Your task to perform on an android device: Go to Reddit.com Image 0: 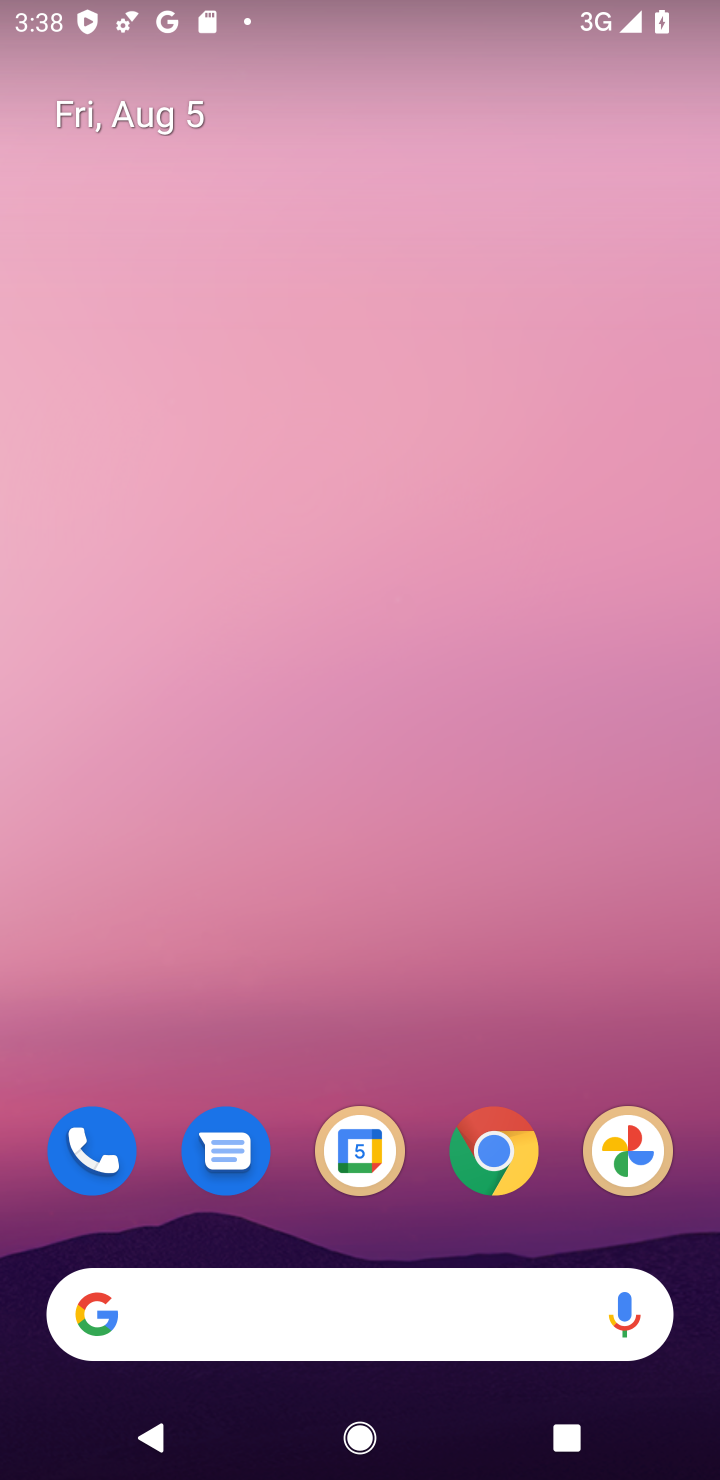
Step 0: click (519, 1150)
Your task to perform on an android device: Go to Reddit.com Image 1: 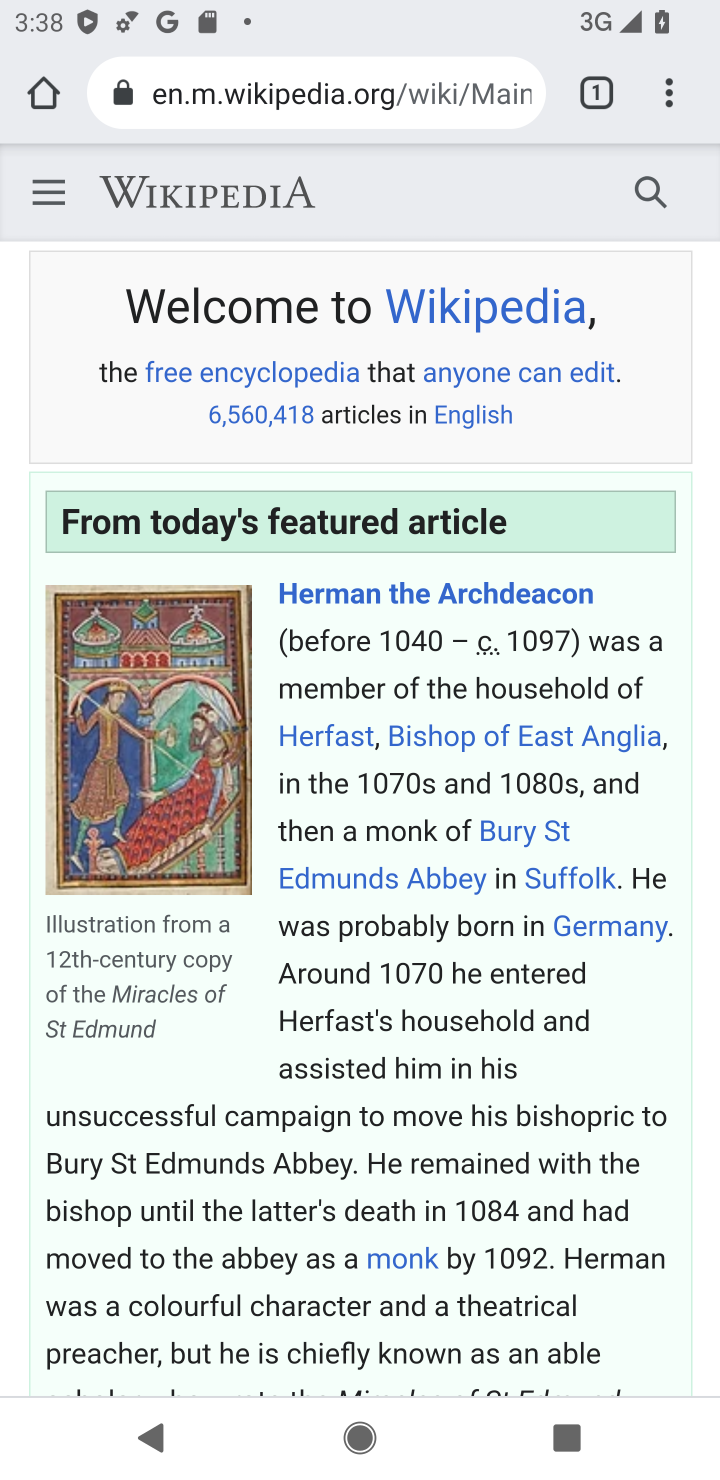
Step 1: click (300, 90)
Your task to perform on an android device: Go to Reddit.com Image 2: 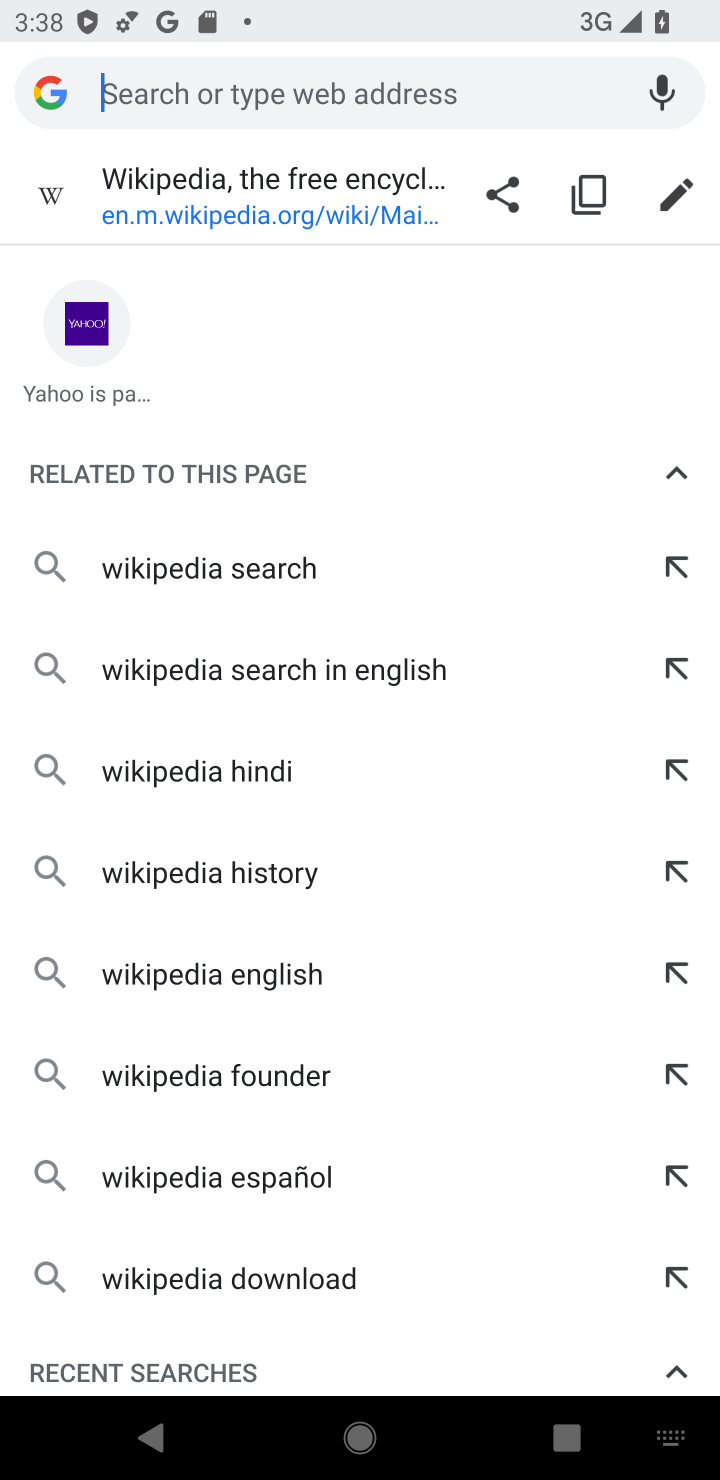
Step 2: type "reddit.com"
Your task to perform on an android device: Go to Reddit.com Image 3: 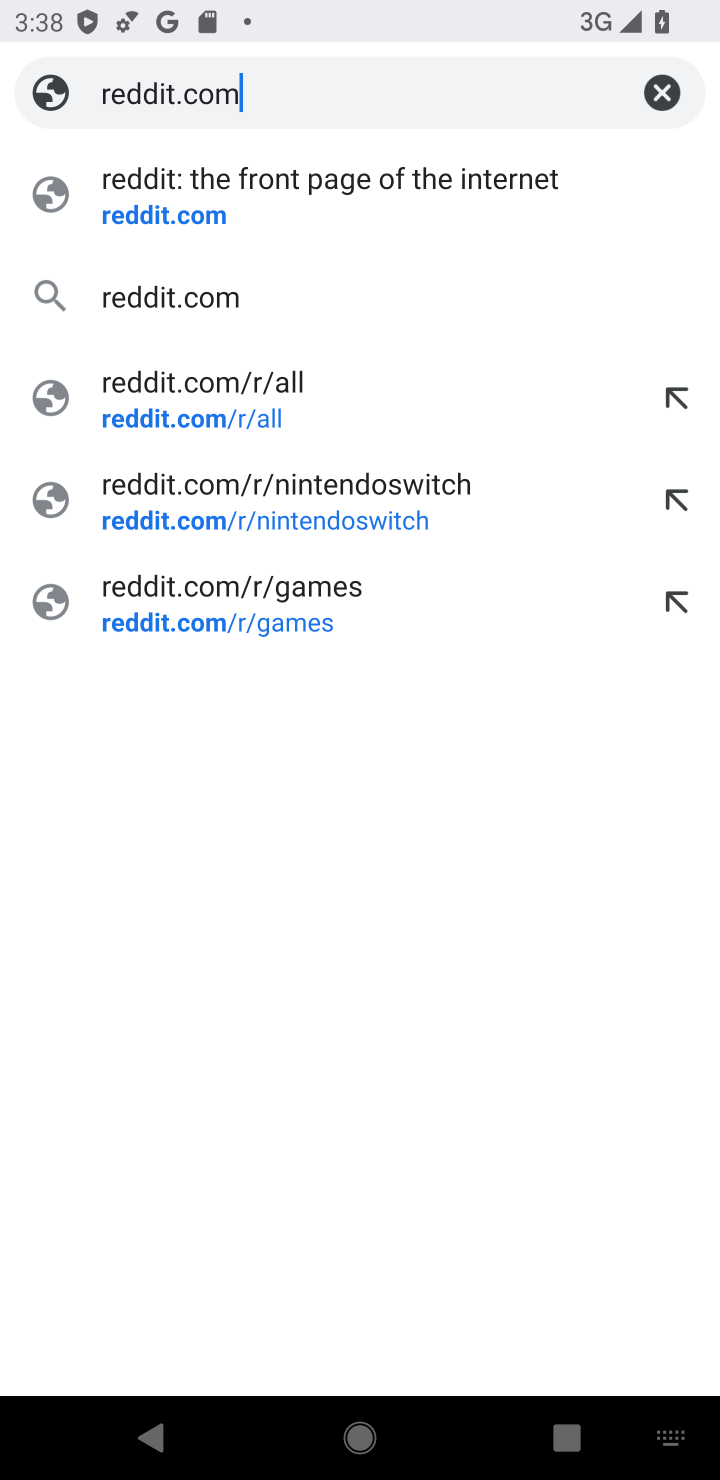
Step 3: click (304, 211)
Your task to perform on an android device: Go to Reddit.com Image 4: 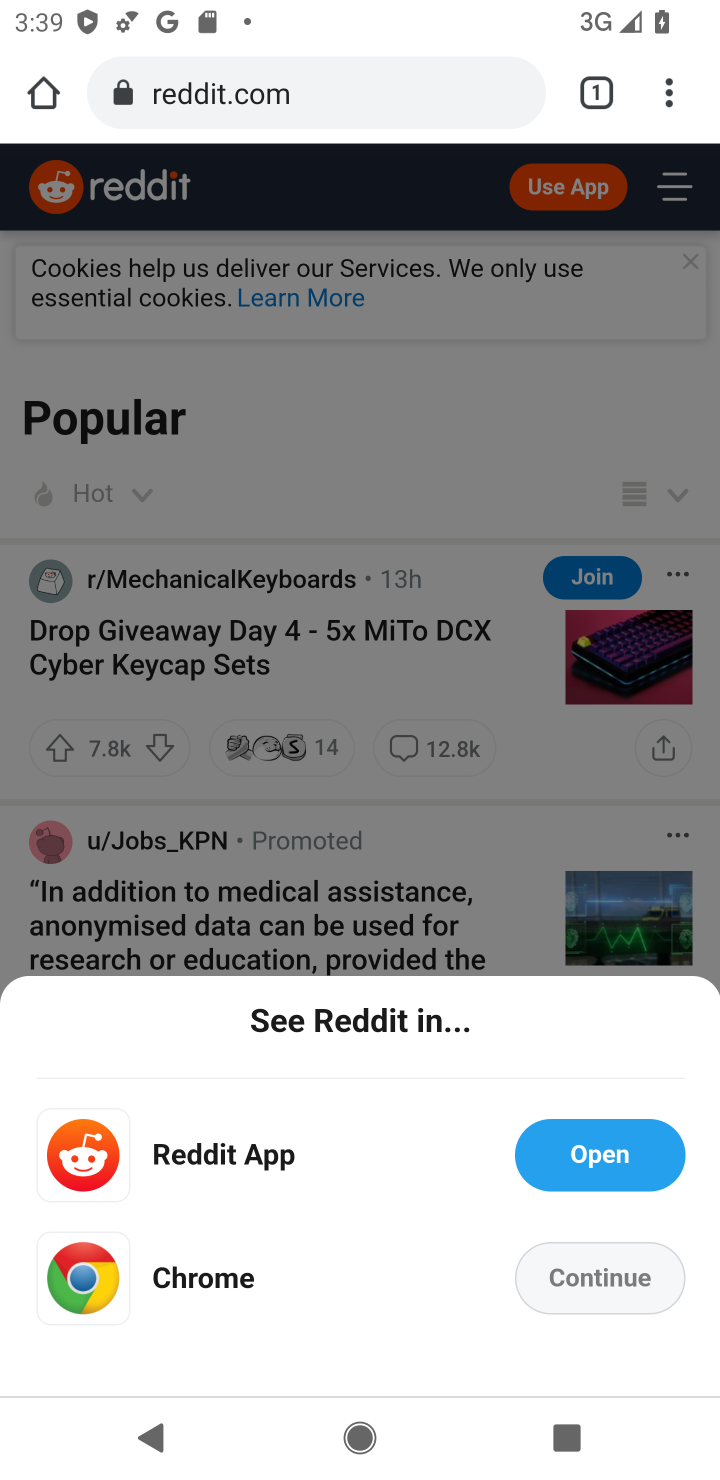
Step 4: task complete